Your task to perform on an android device: Search for "logitech g pro" on ebay, select the first entry, and add it to the cart. Image 0: 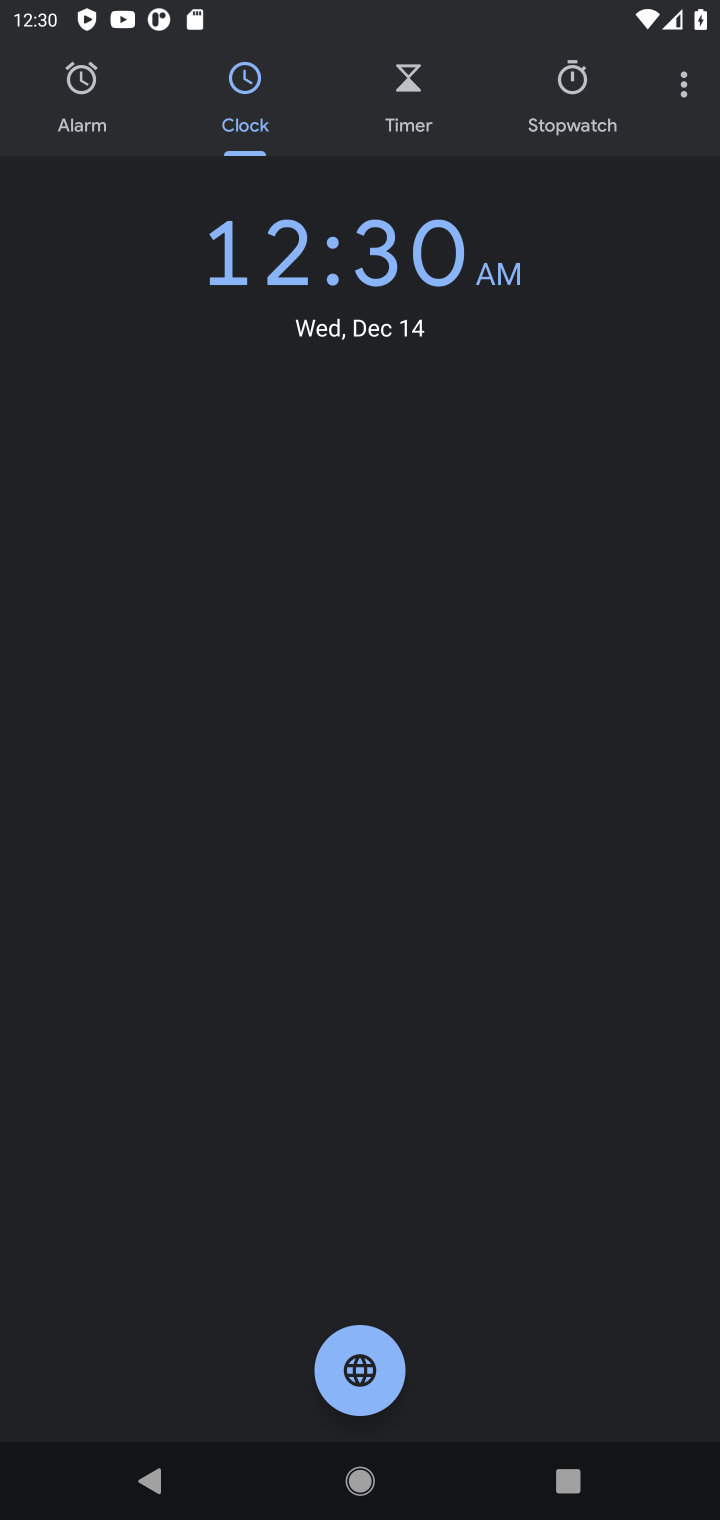
Step 0: press home button
Your task to perform on an android device: Search for "logitech g pro" on ebay, select the first entry, and add it to the cart. Image 1: 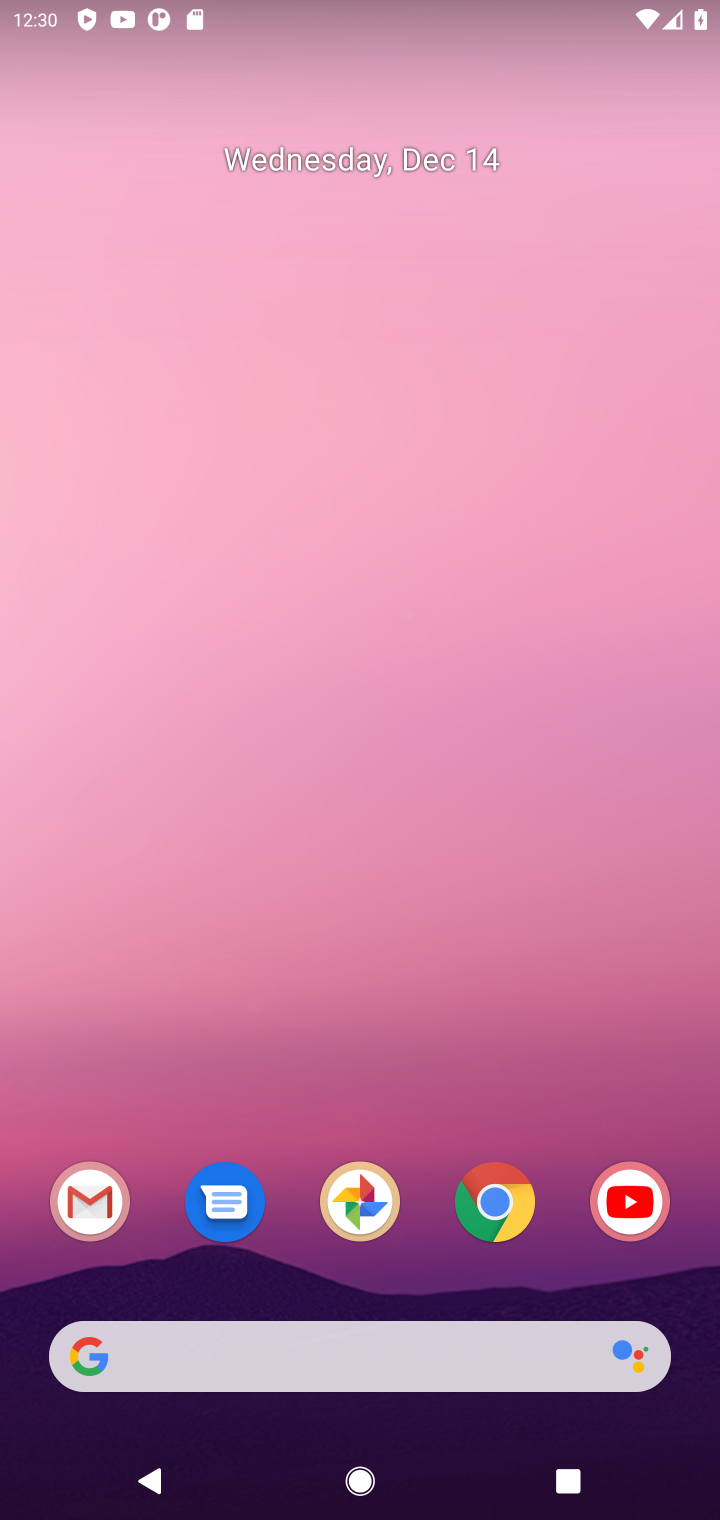
Step 1: click (492, 1206)
Your task to perform on an android device: Search for "logitech g pro" on ebay, select the first entry, and add it to the cart. Image 2: 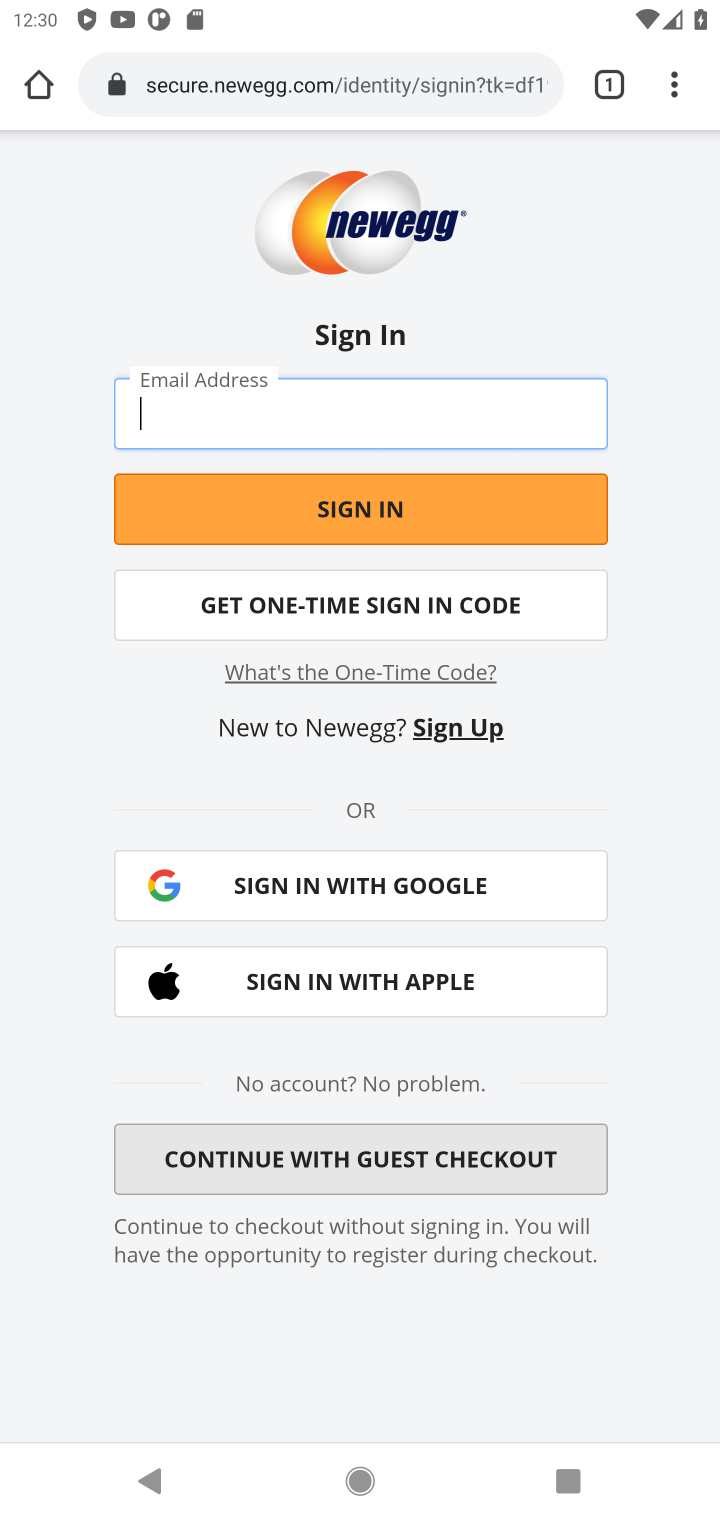
Step 2: click (315, 74)
Your task to perform on an android device: Search for "logitech g pro" on ebay, select the first entry, and add it to the cart. Image 3: 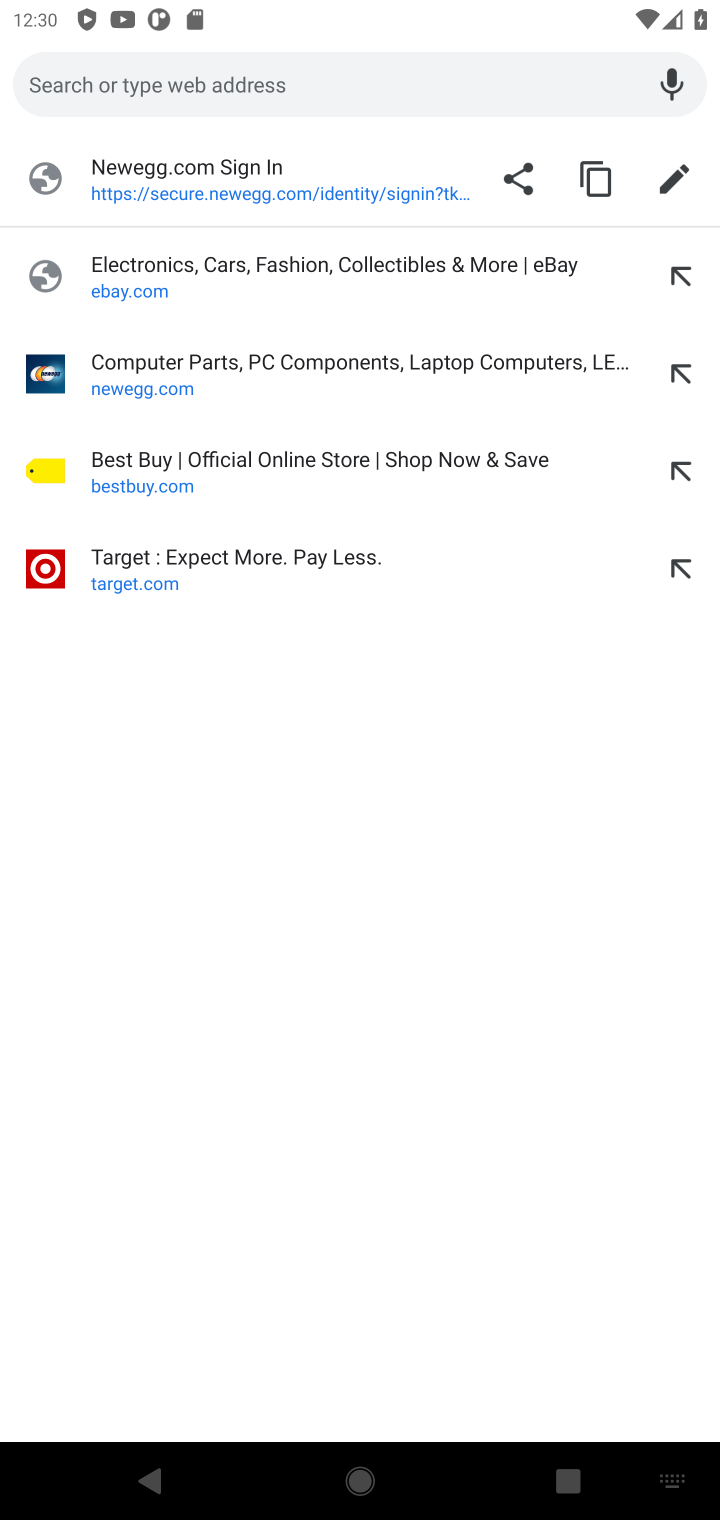
Step 3: click (309, 283)
Your task to perform on an android device: Search for "logitech g pro" on ebay, select the first entry, and add it to the cart. Image 4: 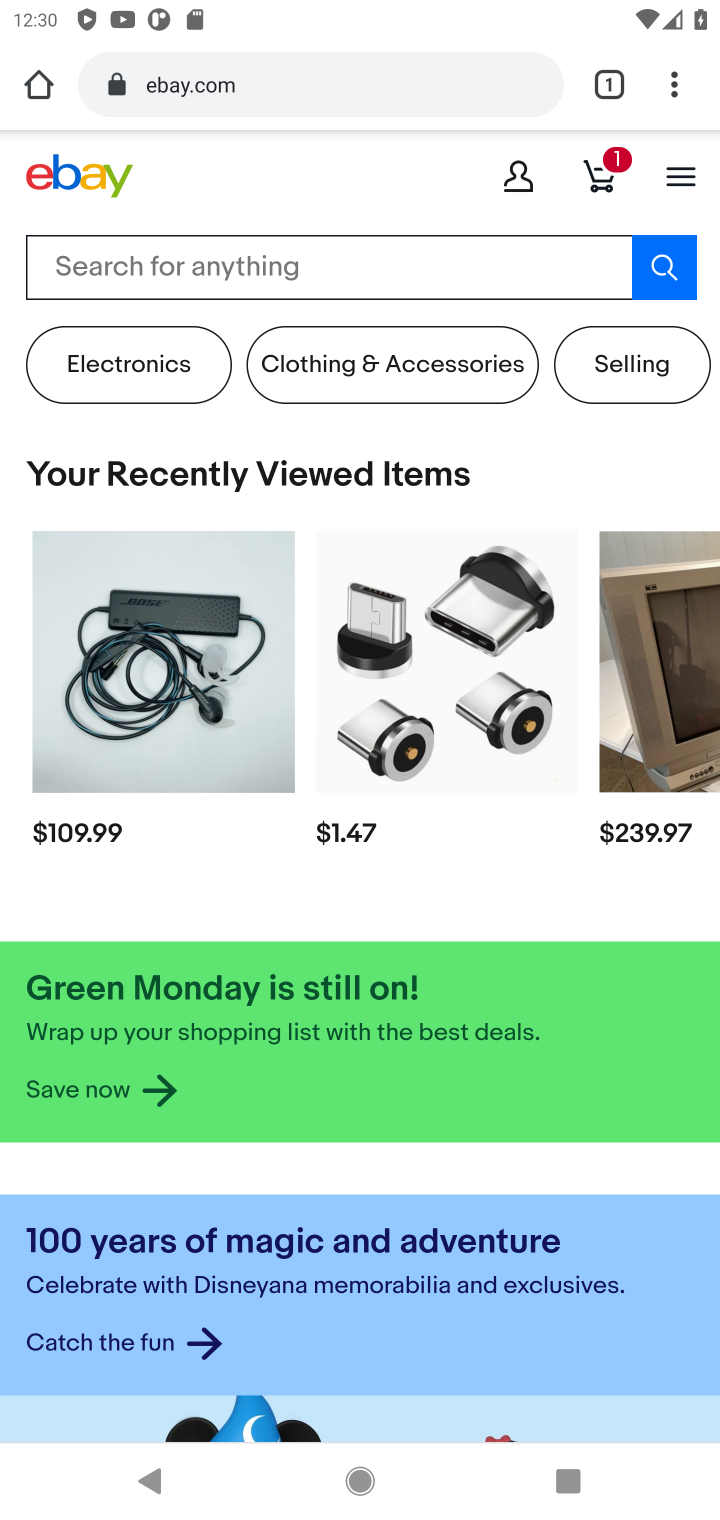
Step 4: click (269, 270)
Your task to perform on an android device: Search for "logitech g pro" on ebay, select the first entry, and add it to the cart. Image 5: 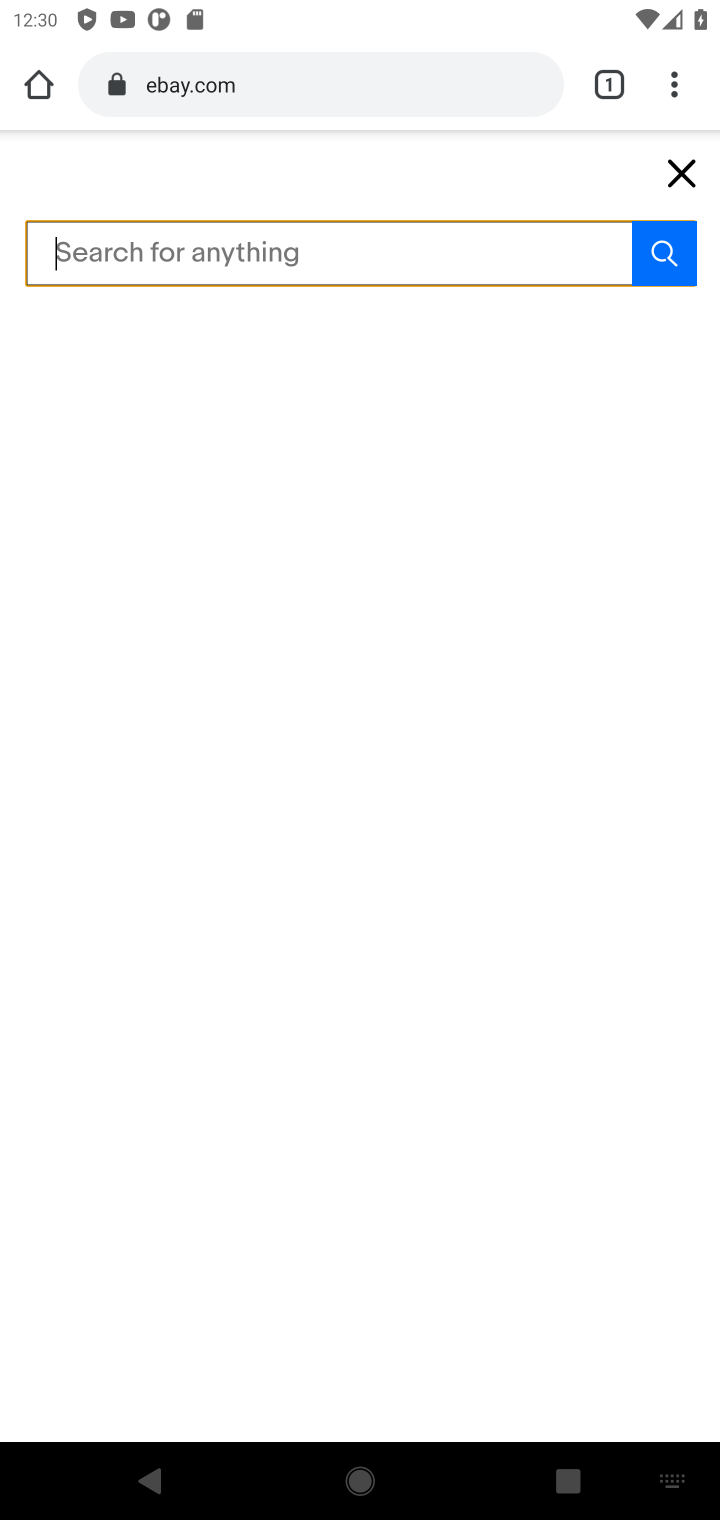
Step 5: type "logitech g pro"
Your task to perform on an android device: Search for "logitech g pro" on ebay, select the first entry, and add it to the cart. Image 6: 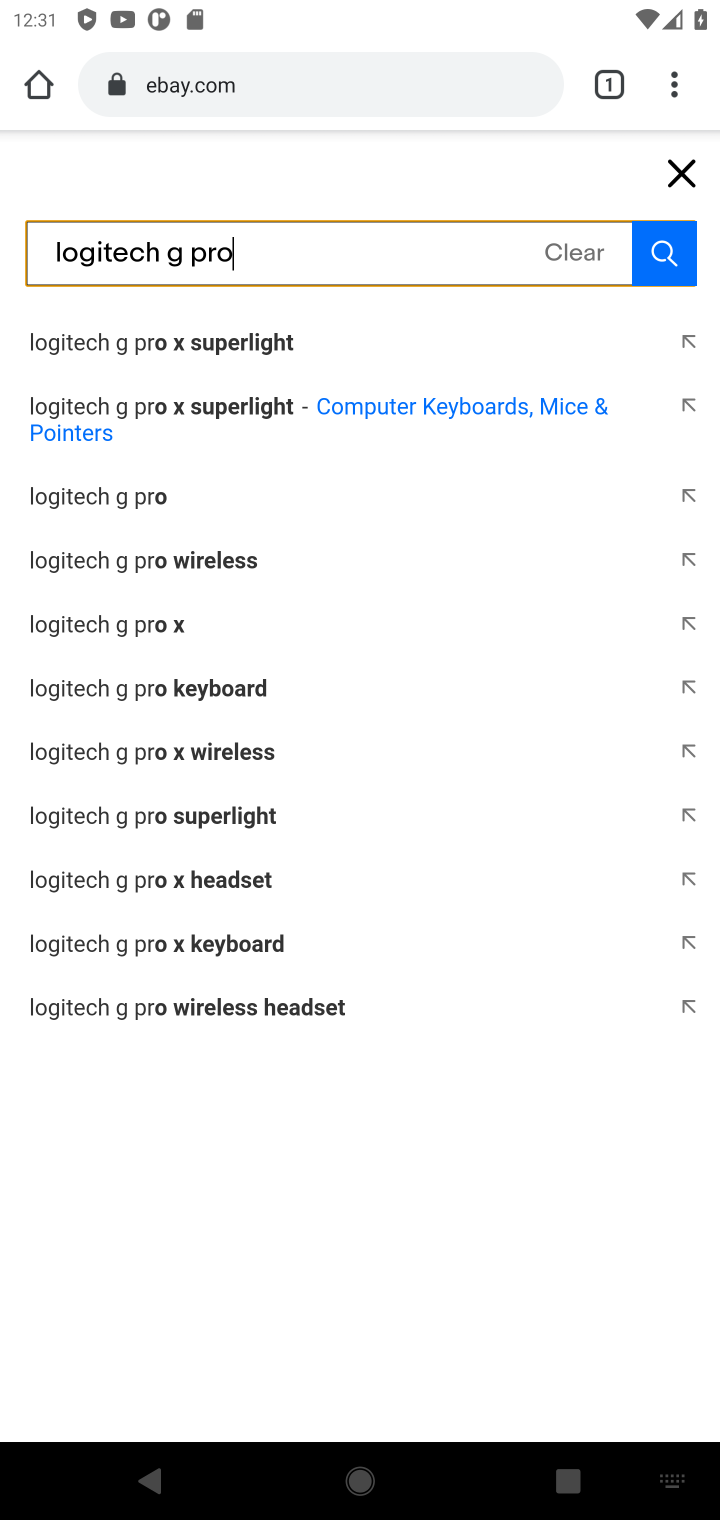
Step 6: click (229, 356)
Your task to perform on an android device: Search for "logitech g pro" on ebay, select the first entry, and add it to the cart. Image 7: 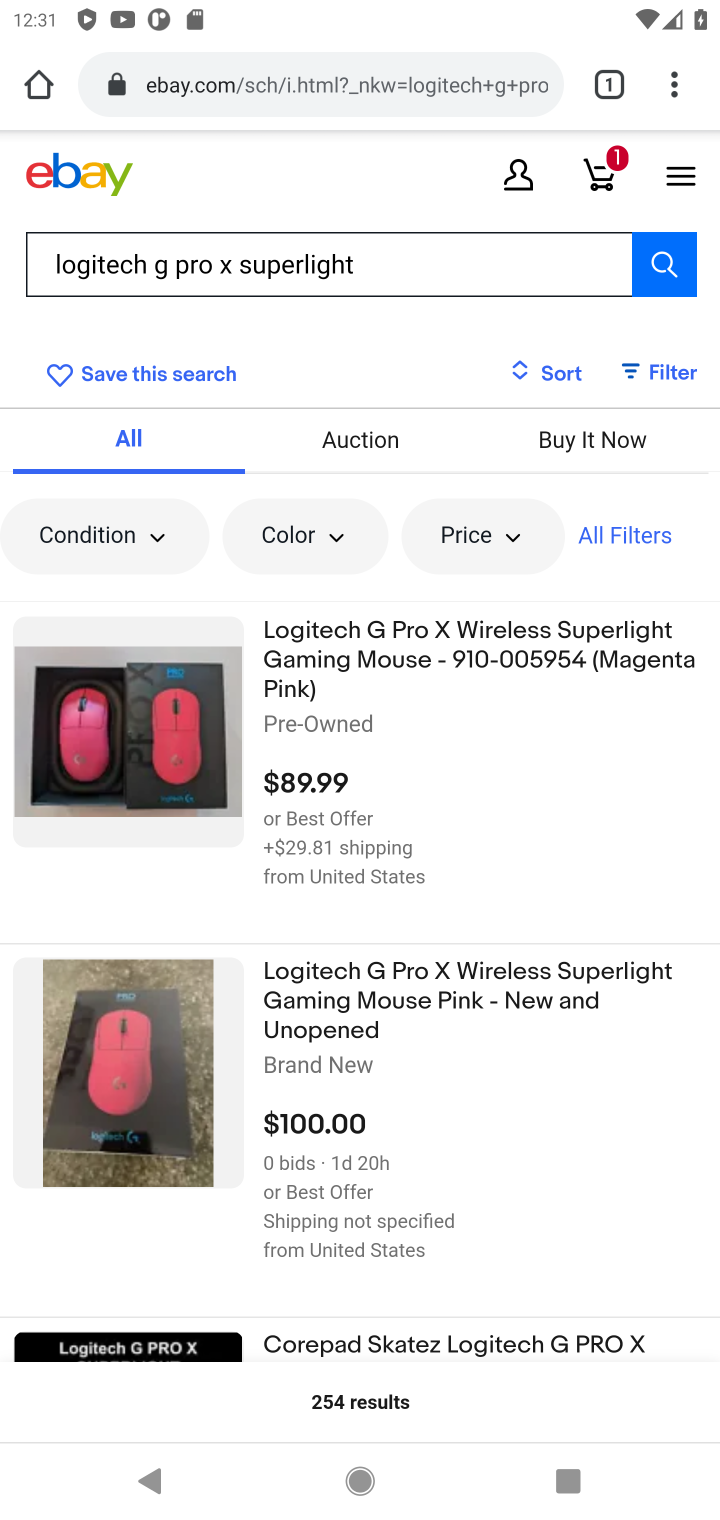
Step 7: click (437, 676)
Your task to perform on an android device: Search for "logitech g pro" on ebay, select the first entry, and add it to the cart. Image 8: 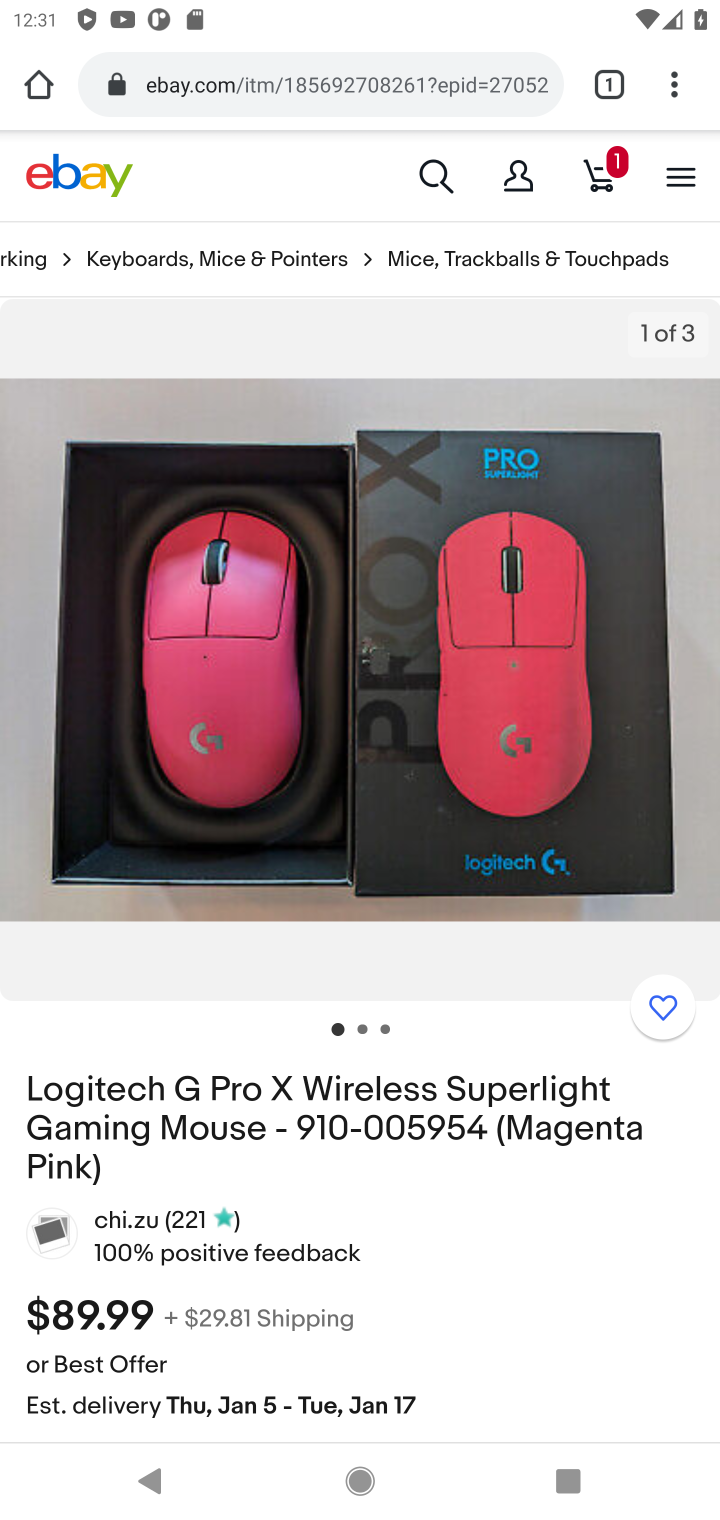
Step 8: drag from (434, 1297) to (390, 480)
Your task to perform on an android device: Search for "logitech g pro" on ebay, select the first entry, and add it to the cart. Image 9: 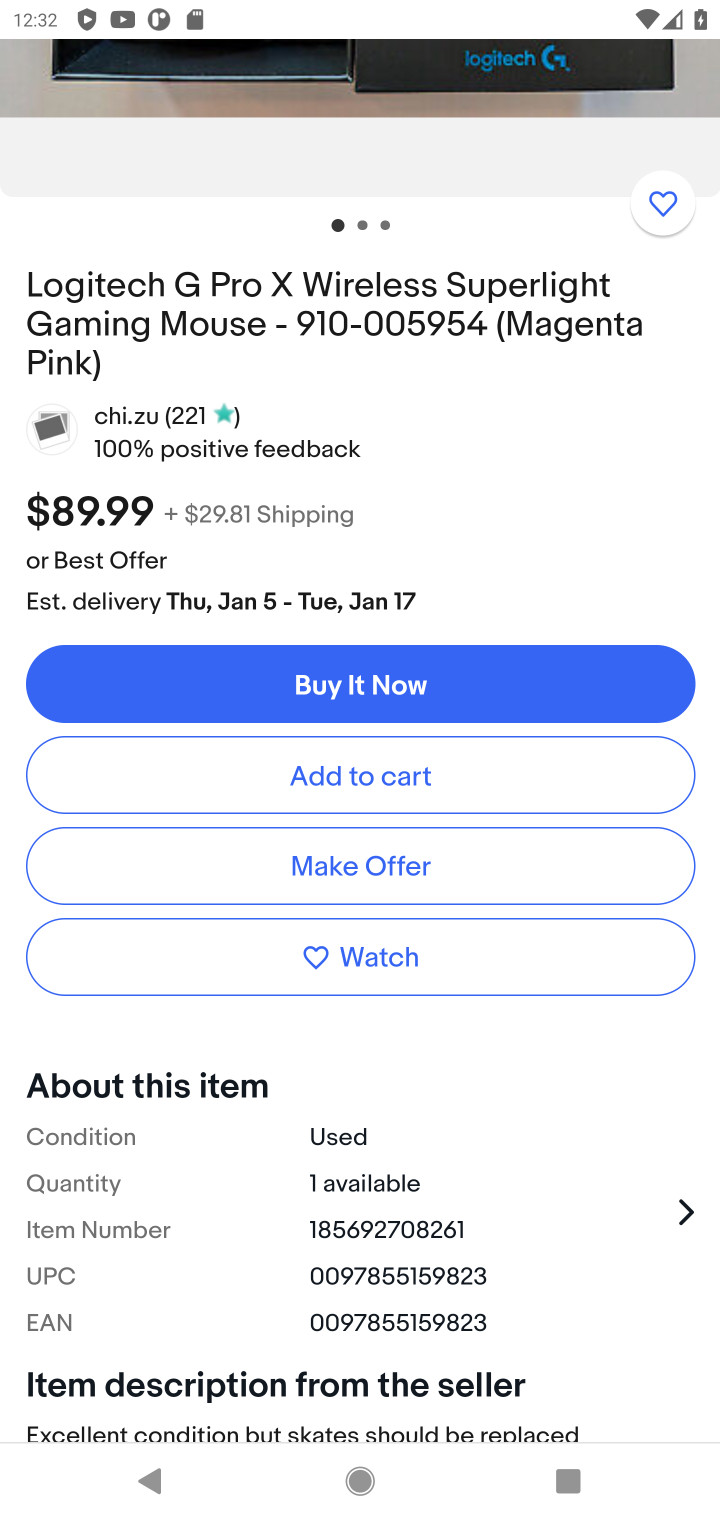
Step 9: click (371, 781)
Your task to perform on an android device: Search for "logitech g pro" on ebay, select the first entry, and add it to the cart. Image 10: 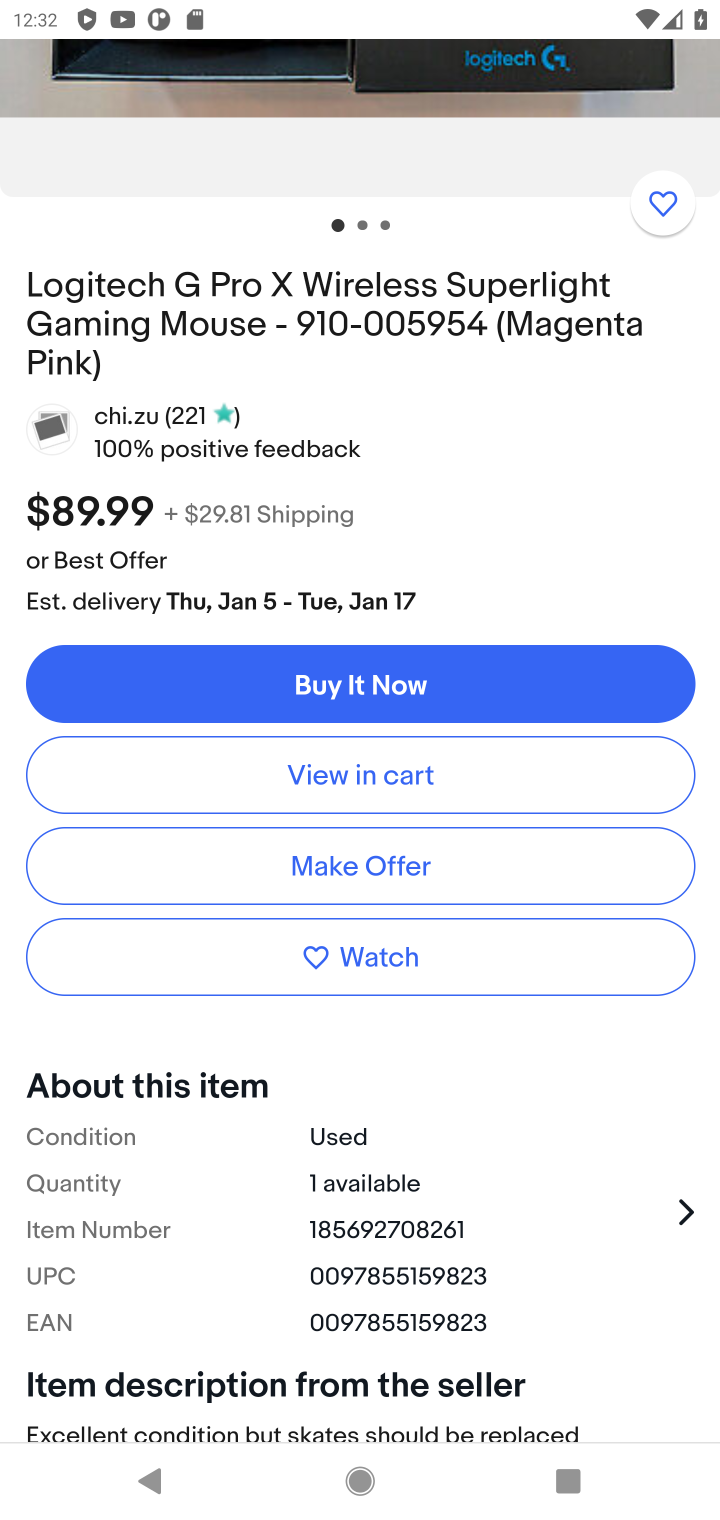
Step 10: click (371, 781)
Your task to perform on an android device: Search for "logitech g pro" on ebay, select the first entry, and add it to the cart. Image 11: 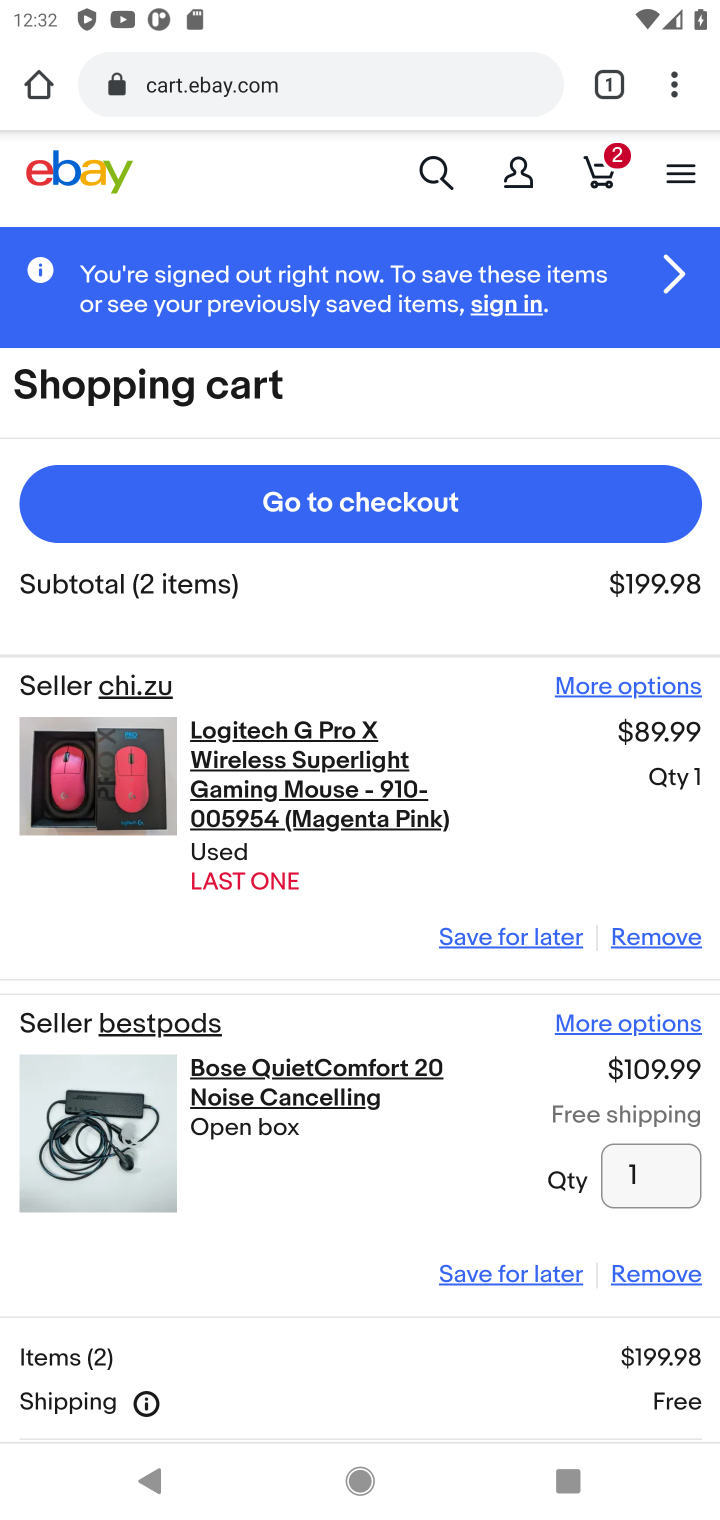
Step 11: click (350, 502)
Your task to perform on an android device: Search for "logitech g pro" on ebay, select the first entry, and add it to the cart. Image 12: 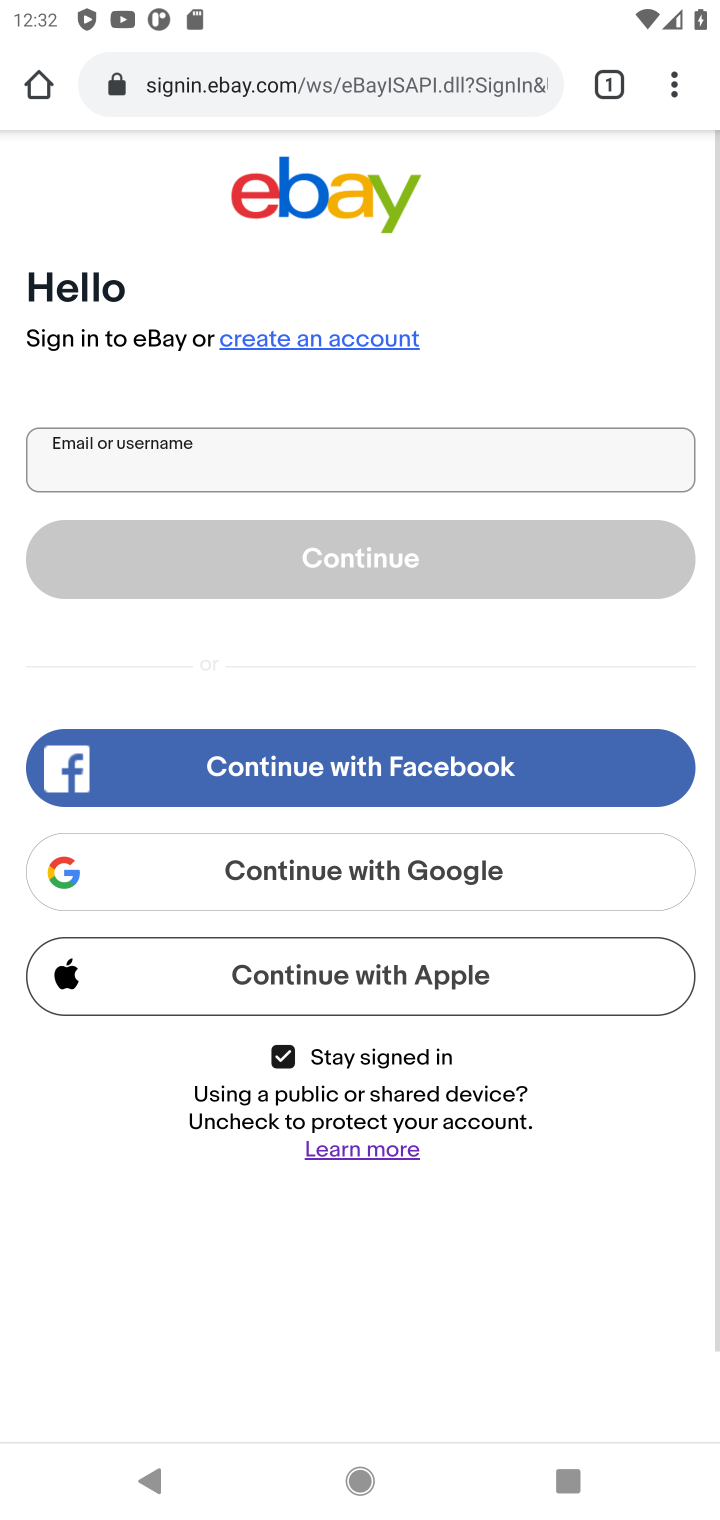
Step 12: task complete